Your task to perform on an android device: turn off translation in the chrome app Image 0: 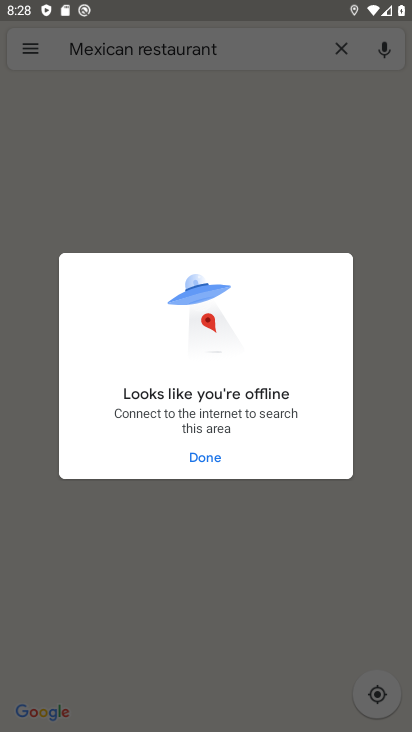
Step 0: press home button
Your task to perform on an android device: turn off translation in the chrome app Image 1: 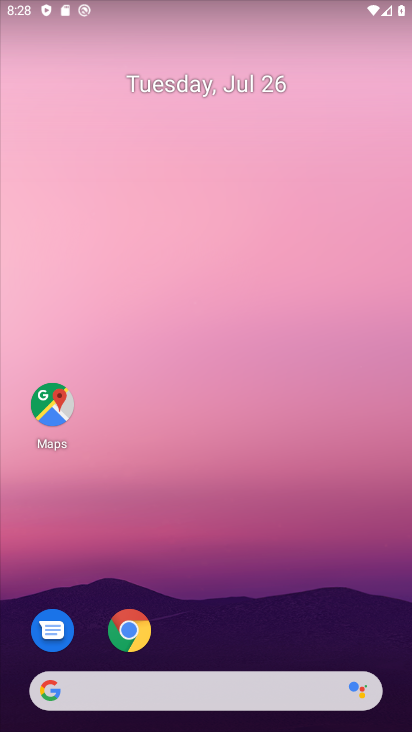
Step 1: drag from (230, 506) to (190, 0)
Your task to perform on an android device: turn off translation in the chrome app Image 2: 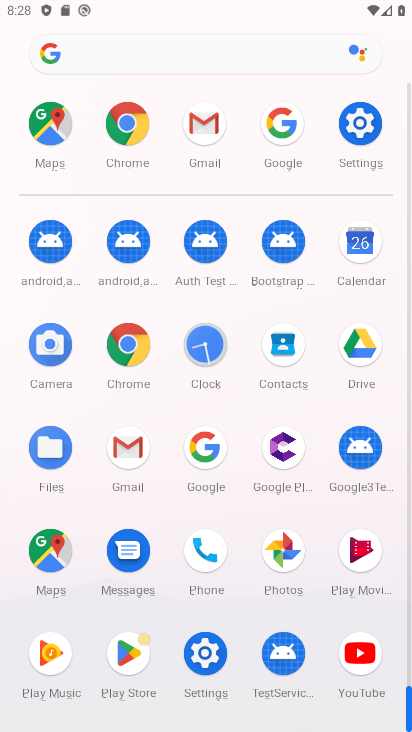
Step 2: click (119, 130)
Your task to perform on an android device: turn off translation in the chrome app Image 3: 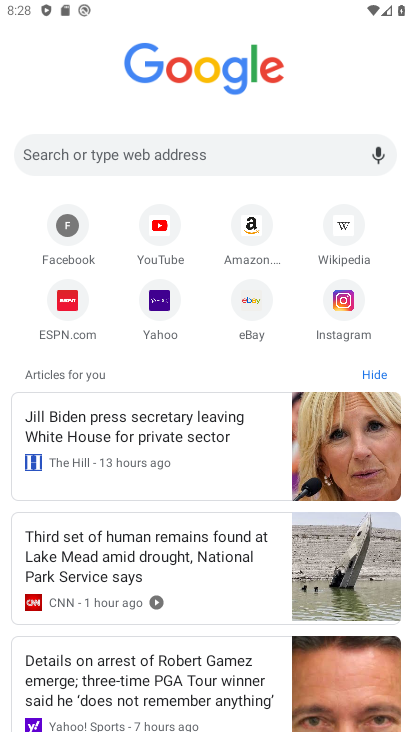
Step 3: drag from (249, 166) to (288, 586)
Your task to perform on an android device: turn off translation in the chrome app Image 4: 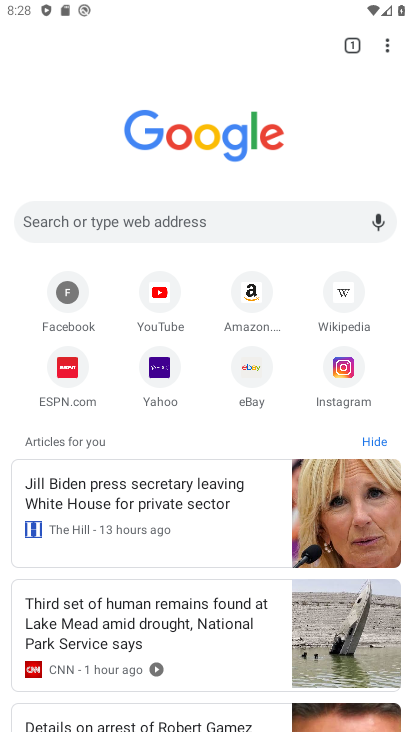
Step 4: drag from (389, 50) to (237, 391)
Your task to perform on an android device: turn off translation in the chrome app Image 5: 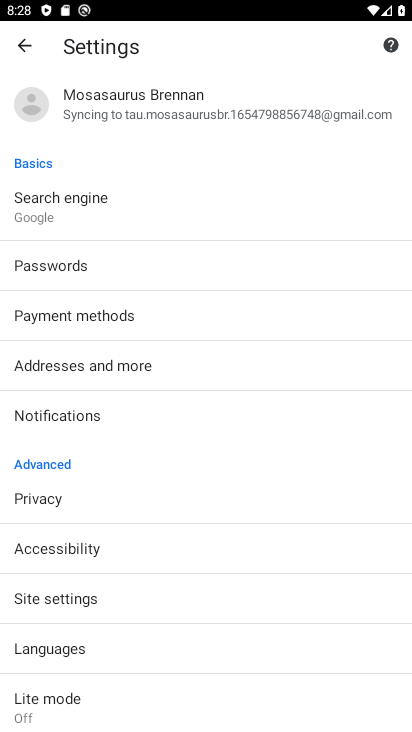
Step 5: drag from (189, 643) to (280, 142)
Your task to perform on an android device: turn off translation in the chrome app Image 6: 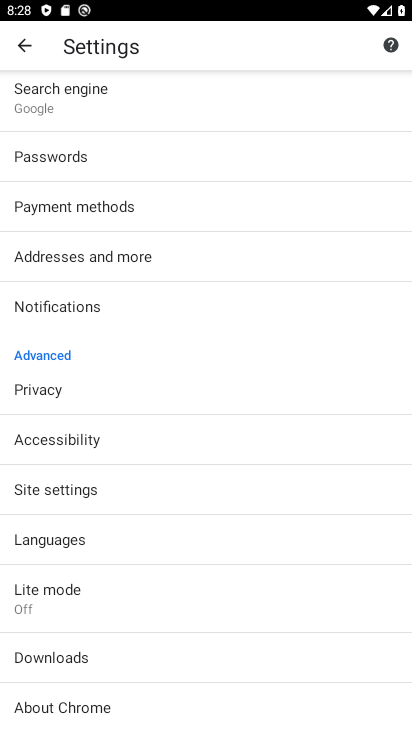
Step 6: click (68, 541)
Your task to perform on an android device: turn off translation in the chrome app Image 7: 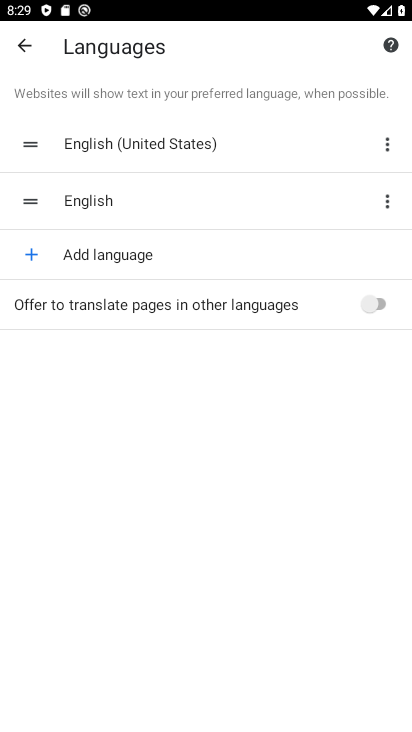
Step 7: task complete